Your task to perform on an android device: toggle data saver in the chrome app Image 0: 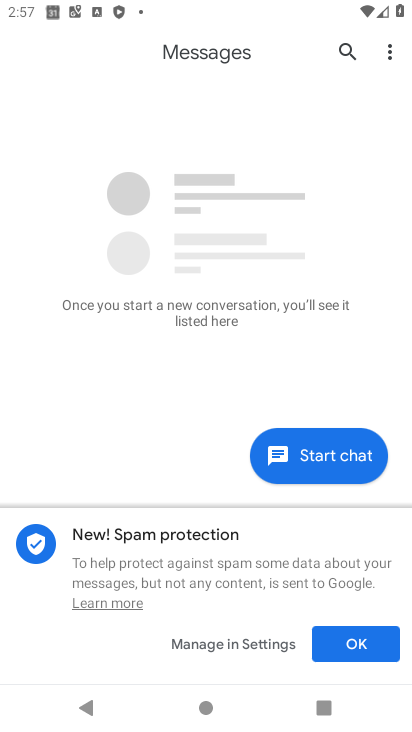
Step 0: press home button
Your task to perform on an android device: toggle data saver in the chrome app Image 1: 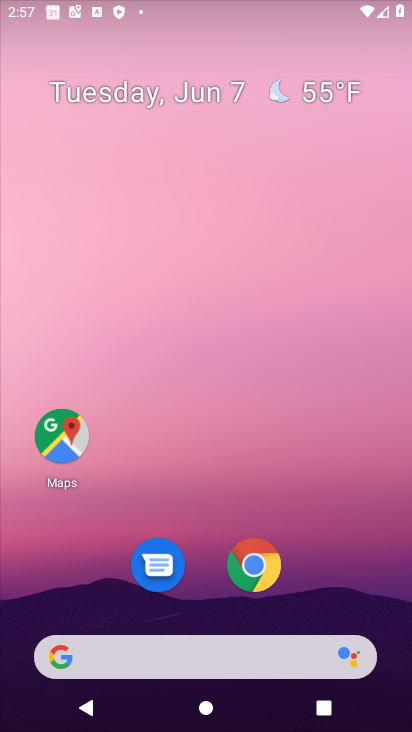
Step 1: drag from (256, 653) to (219, 60)
Your task to perform on an android device: toggle data saver in the chrome app Image 2: 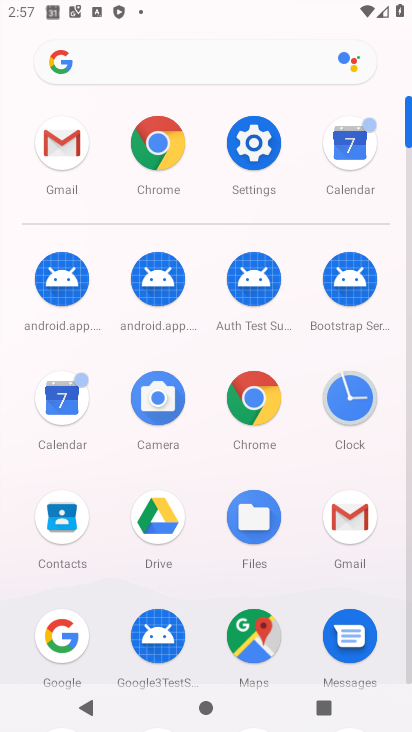
Step 2: click (253, 398)
Your task to perform on an android device: toggle data saver in the chrome app Image 3: 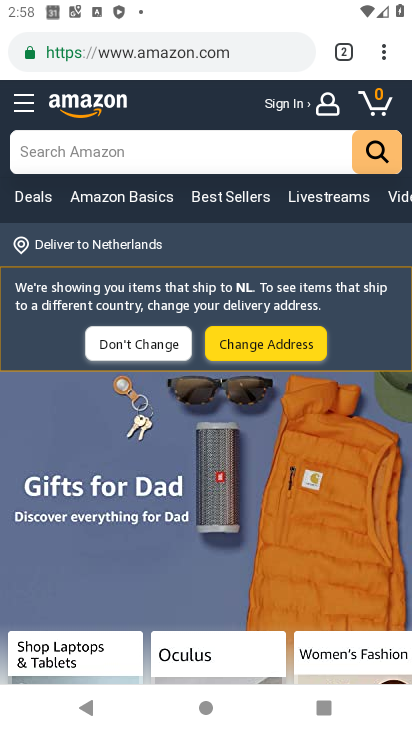
Step 3: drag from (387, 53) to (208, 629)
Your task to perform on an android device: toggle data saver in the chrome app Image 4: 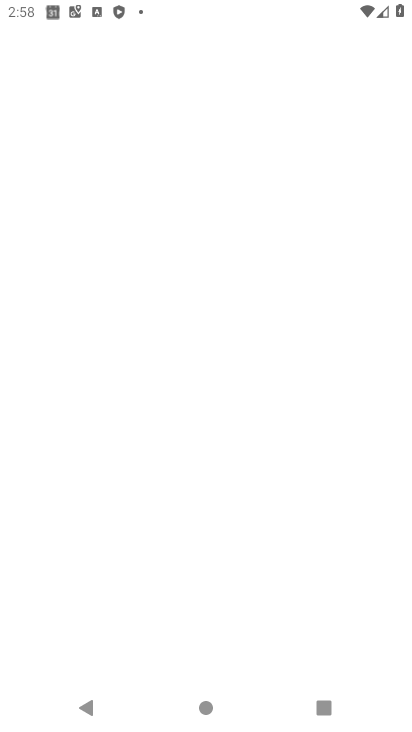
Step 4: click (383, 50)
Your task to perform on an android device: toggle data saver in the chrome app Image 5: 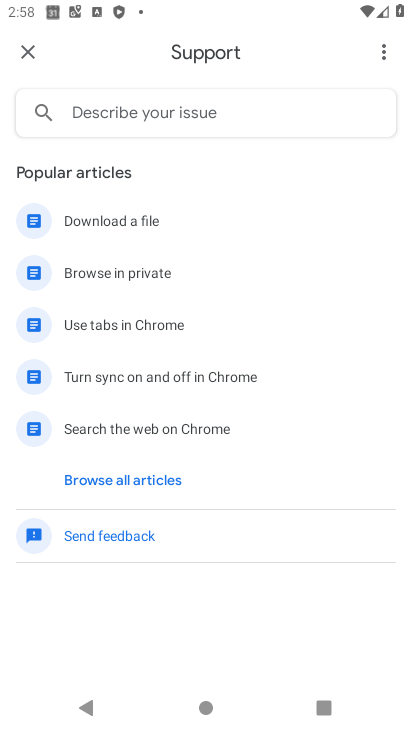
Step 5: press back button
Your task to perform on an android device: toggle data saver in the chrome app Image 6: 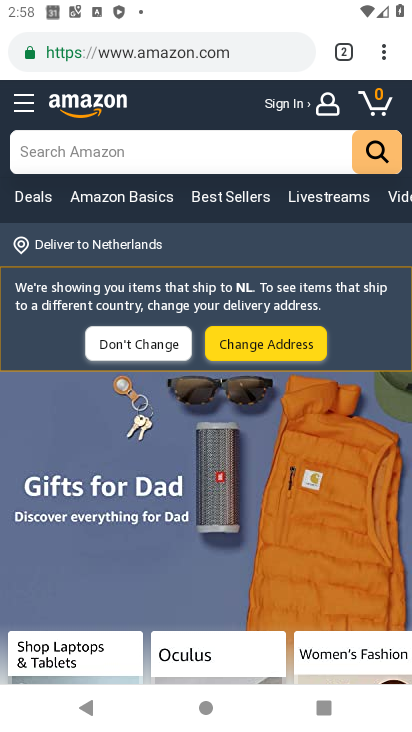
Step 6: click (374, 49)
Your task to perform on an android device: toggle data saver in the chrome app Image 7: 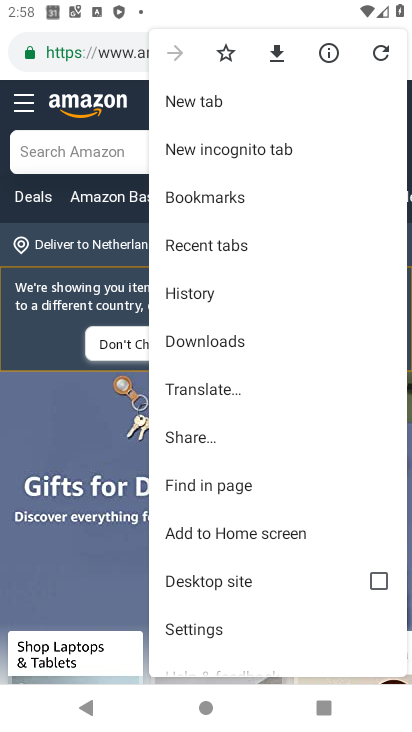
Step 7: click (235, 630)
Your task to perform on an android device: toggle data saver in the chrome app Image 8: 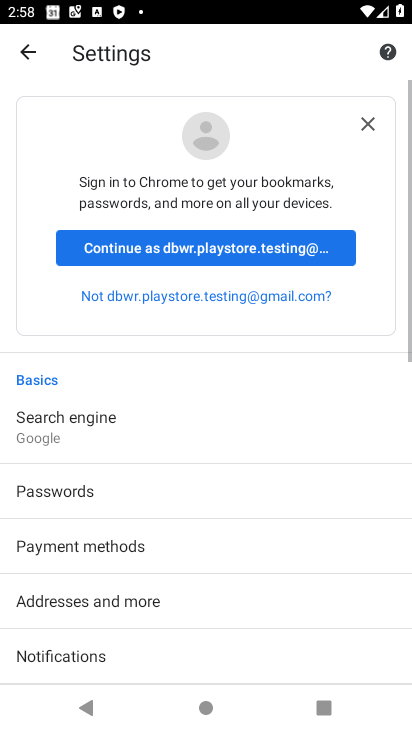
Step 8: drag from (156, 667) to (166, 198)
Your task to perform on an android device: toggle data saver in the chrome app Image 9: 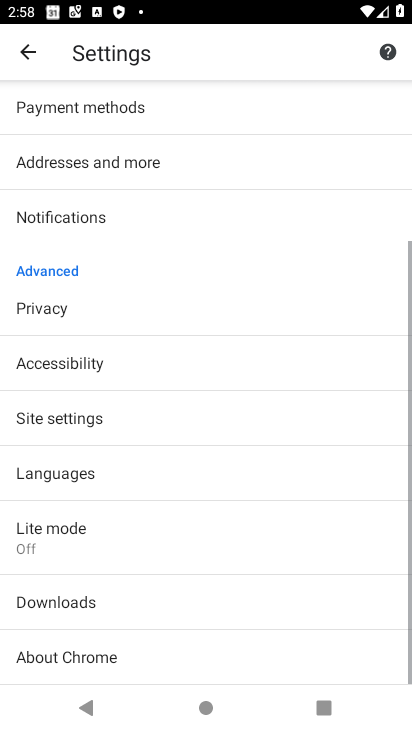
Step 9: click (77, 522)
Your task to perform on an android device: toggle data saver in the chrome app Image 10: 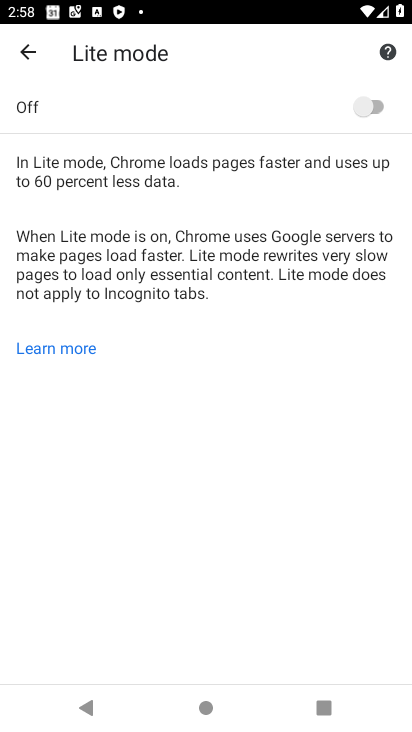
Step 10: click (372, 100)
Your task to perform on an android device: toggle data saver in the chrome app Image 11: 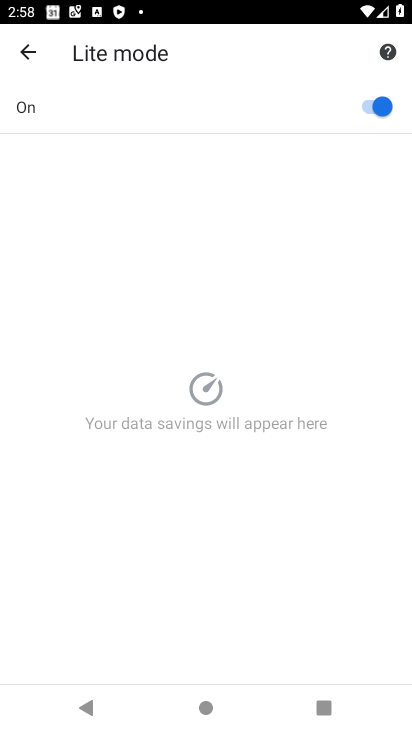
Step 11: task complete